Your task to perform on an android device: change the upload size in google photos Image 0: 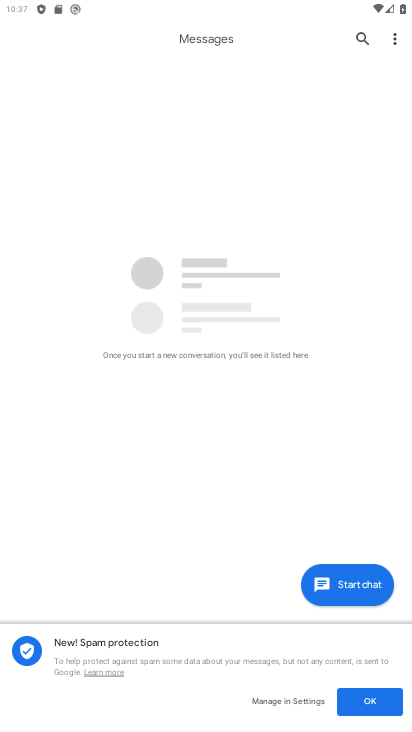
Step 0: press home button
Your task to perform on an android device: change the upload size in google photos Image 1: 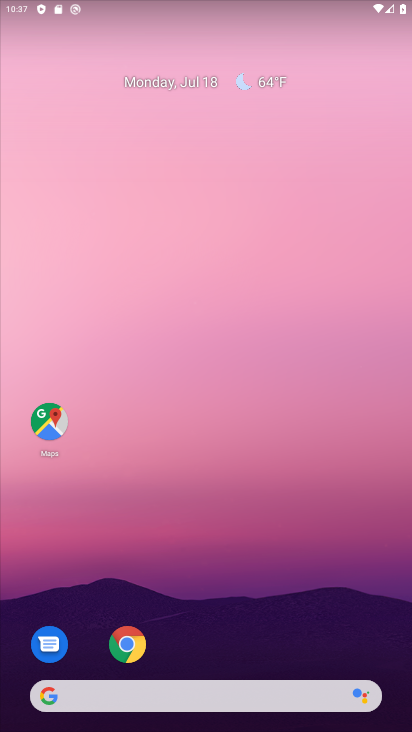
Step 1: drag from (250, 640) to (234, 165)
Your task to perform on an android device: change the upload size in google photos Image 2: 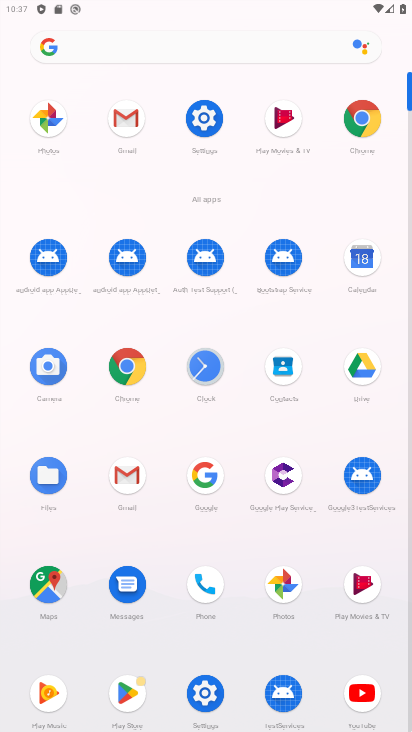
Step 2: click (283, 595)
Your task to perform on an android device: change the upload size in google photos Image 3: 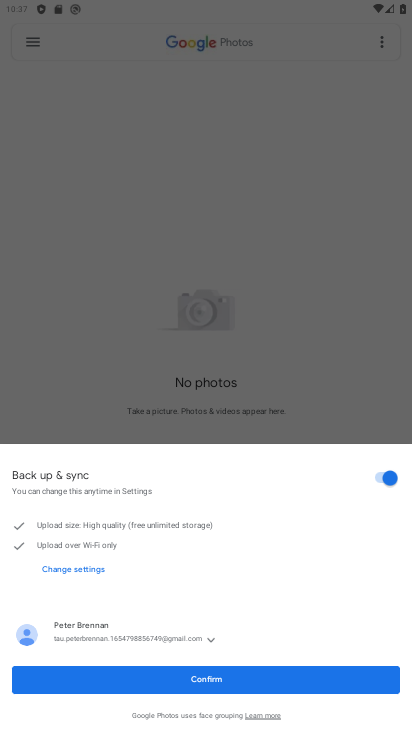
Step 3: click (247, 681)
Your task to perform on an android device: change the upload size in google photos Image 4: 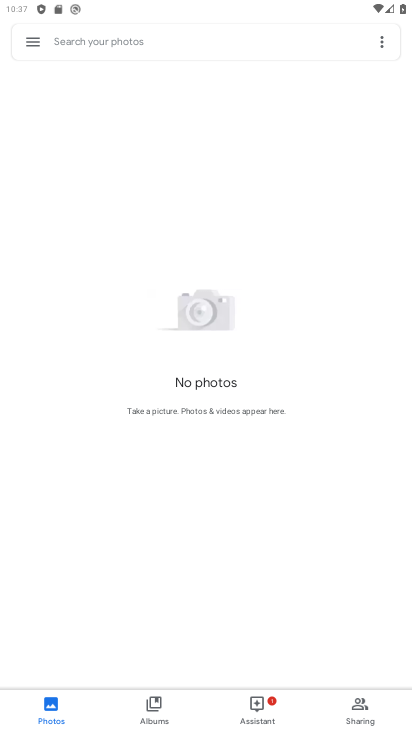
Step 4: click (24, 42)
Your task to perform on an android device: change the upload size in google photos Image 5: 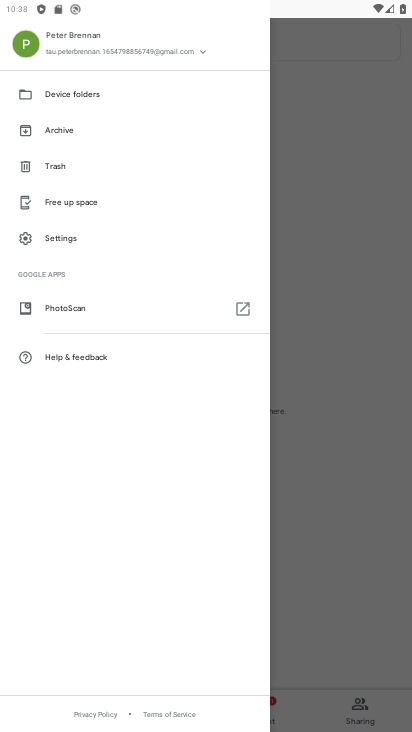
Step 5: click (73, 233)
Your task to perform on an android device: change the upload size in google photos Image 6: 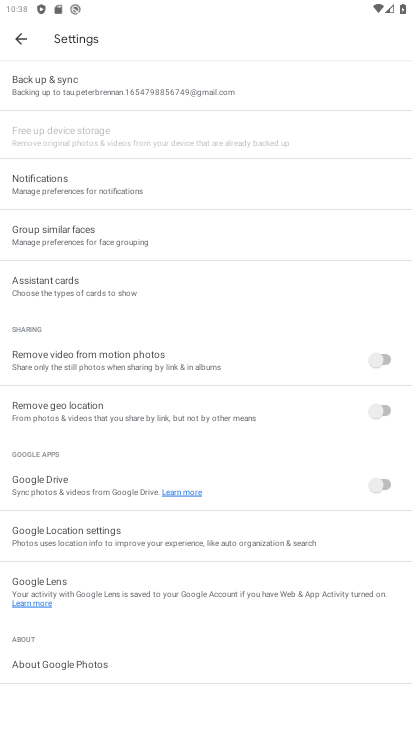
Step 6: click (61, 74)
Your task to perform on an android device: change the upload size in google photos Image 7: 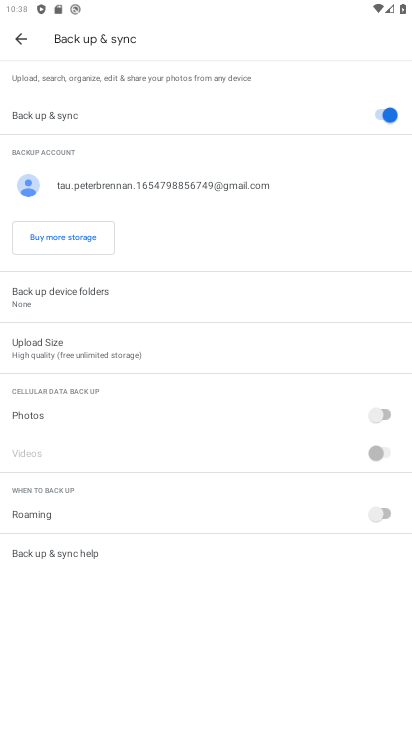
Step 7: click (91, 337)
Your task to perform on an android device: change the upload size in google photos Image 8: 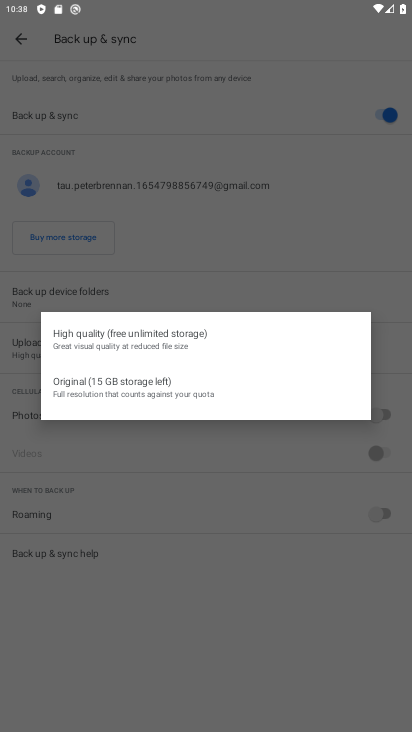
Step 8: click (91, 378)
Your task to perform on an android device: change the upload size in google photos Image 9: 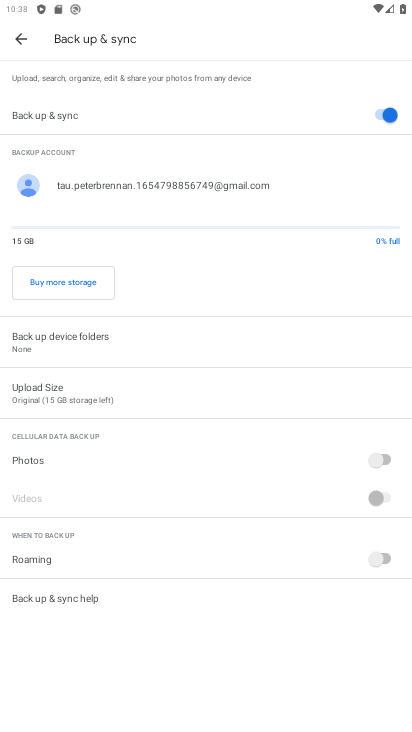
Step 9: task complete